Your task to perform on an android device: toggle pop-ups in chrome Image 0: 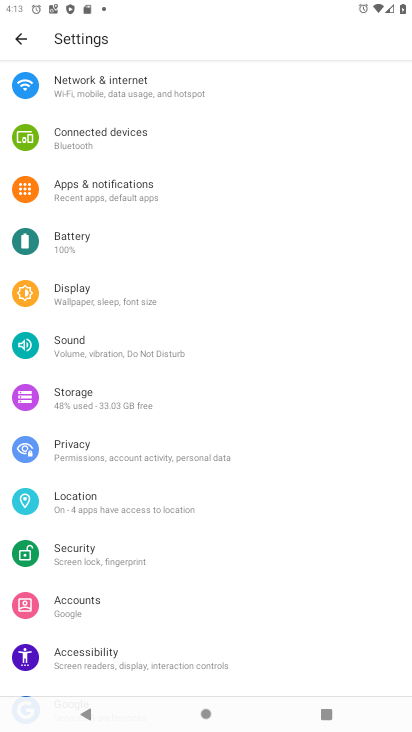
Step 0: press home button
Your task to perform on an android device: toggle pop-ups in chrome Image 1: 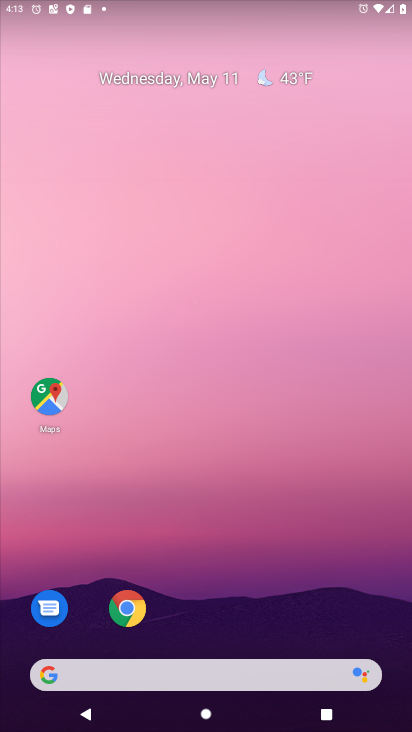
Step 1: click (128, 610)
Your task to perform on an android device: toggle pop-ups in chrome Image 2: 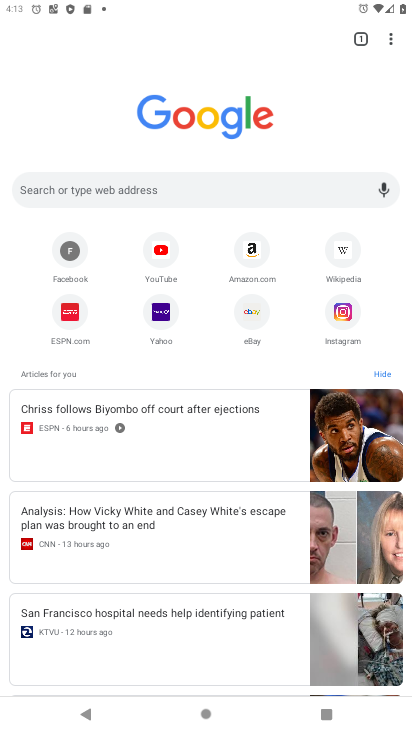
Step 2: click (390, 38)
Your task to perform on an android device: toggle pop-ups in chrome Image 3: 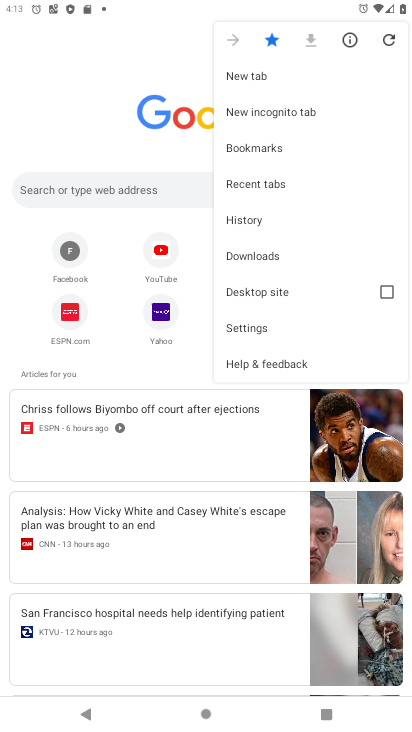
Step 3: click (254, 330)
Your task to perform on an android device: toggle pop-ups in chrome Image 4: 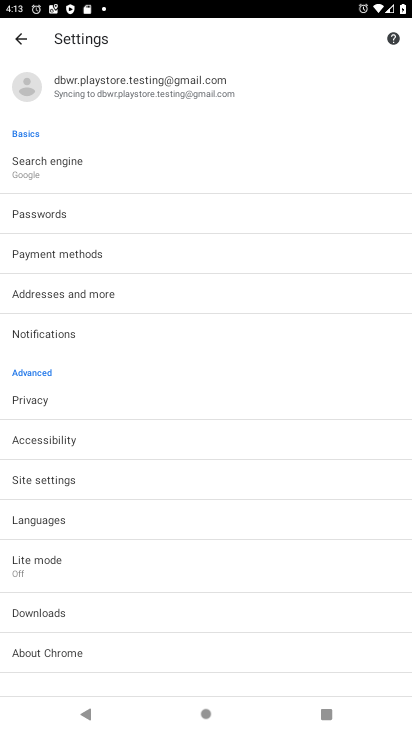
Step 4: click (53, 480)
Your task to perform on an android device: toggle pop-ups in chrome Image 5: 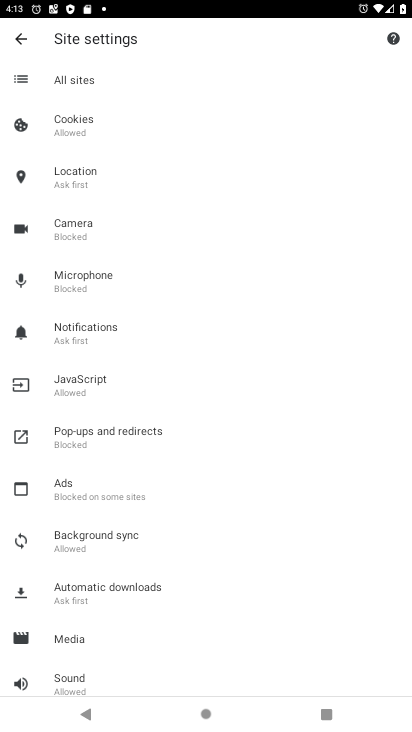
Step 5: click (92, 433)
Your task to perform on an android device: toggle pop-ups in chrome Image 6: 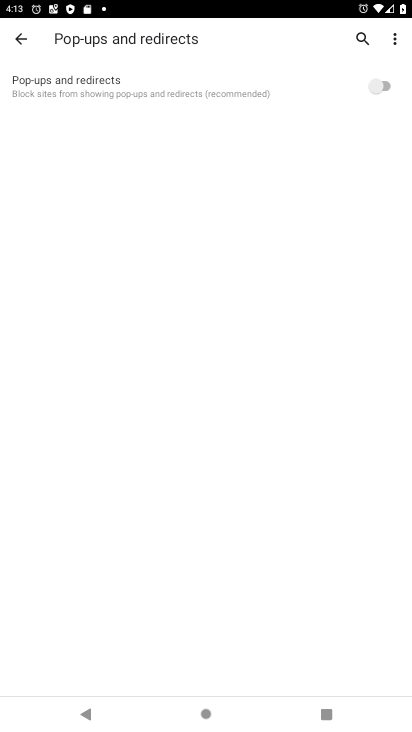
Step 6: click (389, 84)
Your task to perform on an android device: toggle pop-ups in chrome Image 7: 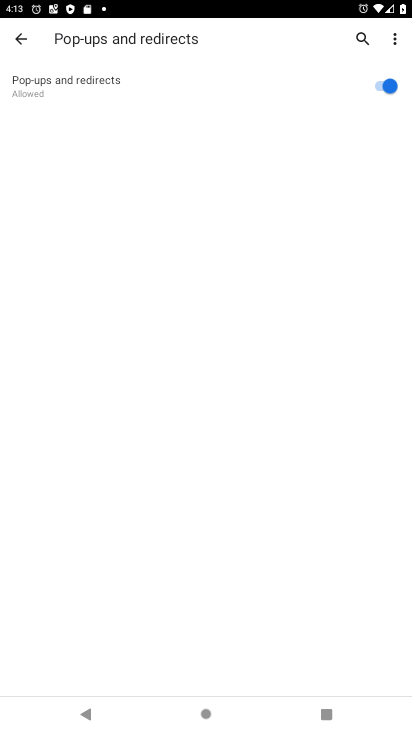
Step 7: task complete